Your task to perform on an android device: search for starred emails in the gmail app Image 0: 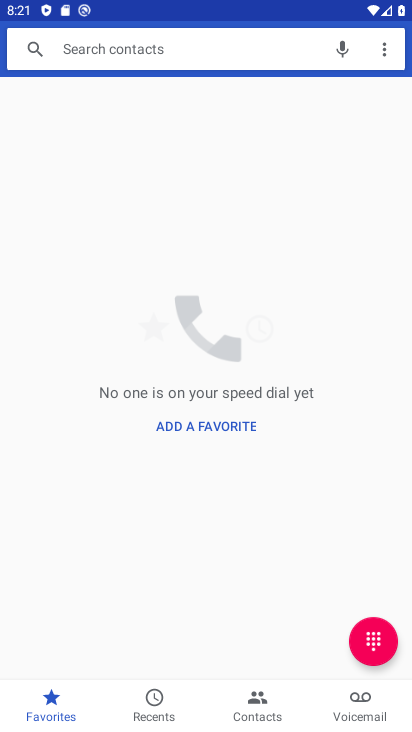
Step 0: press back button
Your task to perform on an android device: search for starred emails in the gmail app Image 1: 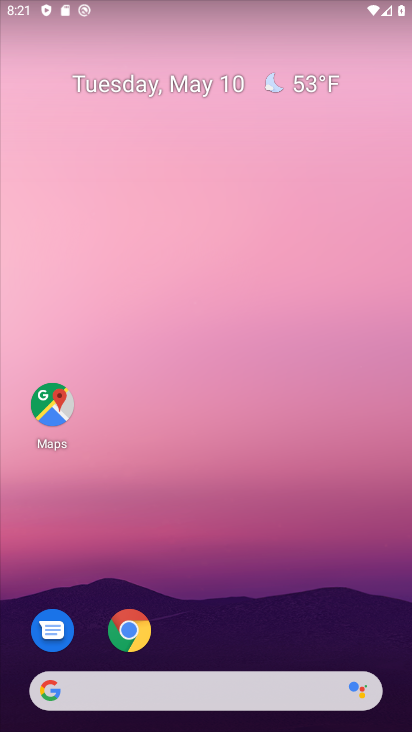
Step 1: drag from (182, 667) to (319, 20)
Your task to perform on an android device: search for starred emails in the gmail app Image 2: 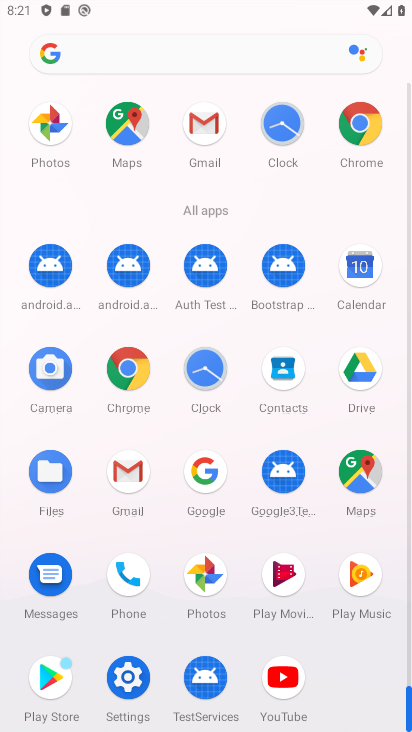
Step 2: click (124, 471)
Your task to perform on an android device: search for starred emails in the gmail app Image 3: 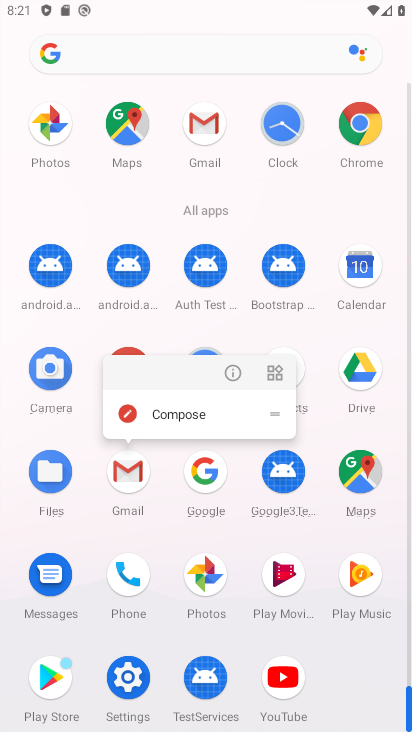
Step 3: click (124, 471)
Your task to perform on an android device: search for starred emails in the gmail app Image 4: 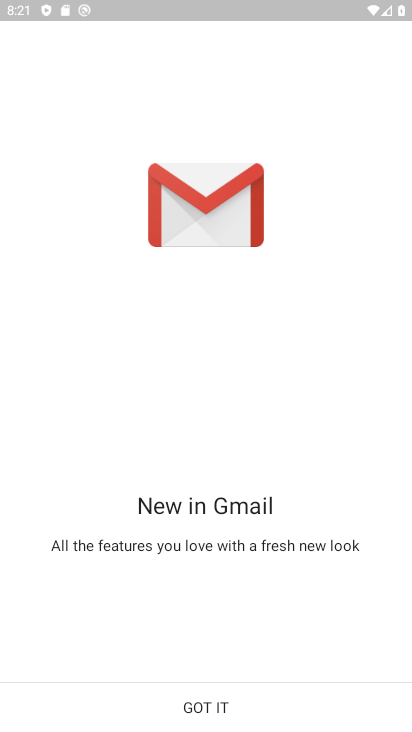
Step 4: click (240, 705)
Your task to perform on an android device: search for starred emails in the gmail app Image 5: 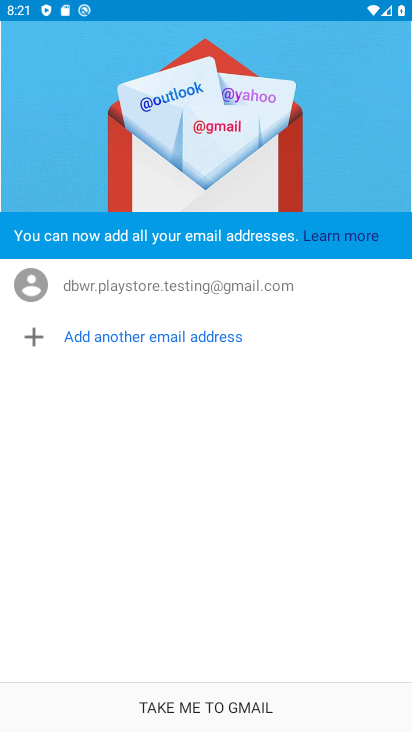
Step 5: click (182, 702)
Your task to perform on an android device: search for starred emails in the gmail app Image 6: 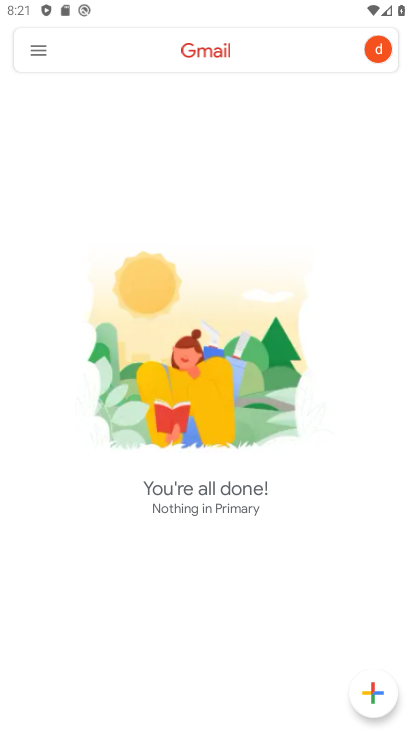
Step 6: click (47, 51)
Your task to perform on an android device: search for starred emails in the gmail app Image 7: 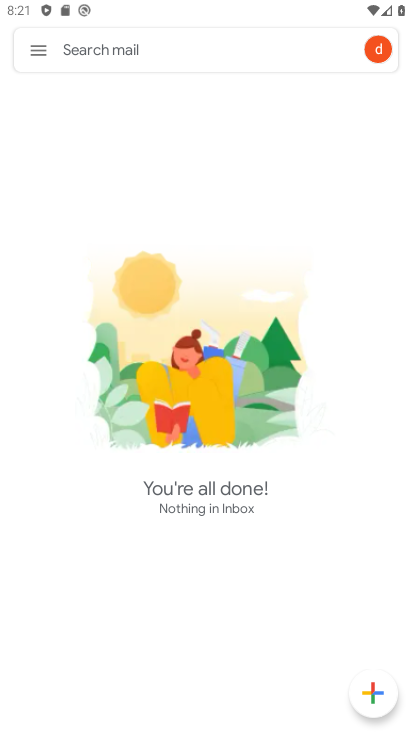
Step 7: click (29, 38)
Your task to perform on an android device: search for starred emails in the gmail app Image 8: 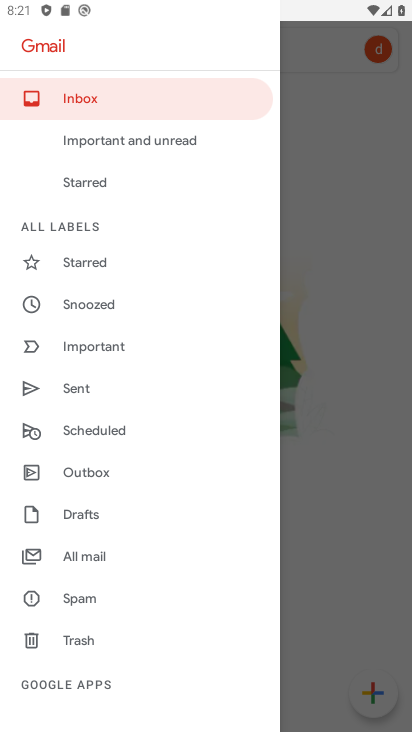
Step 8: click (127, 178)
Your task to perform on an android device: search for starred emails in the gmail app Image 9: 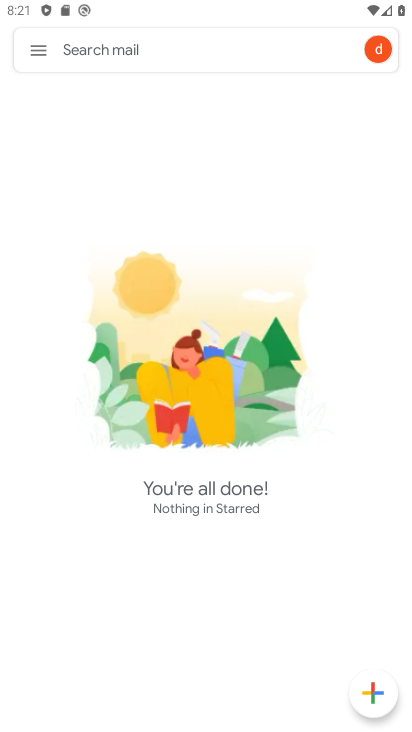
Step 9: task complete